Your task to perform on an android device: delete browsing data in the chrome app Image 0: 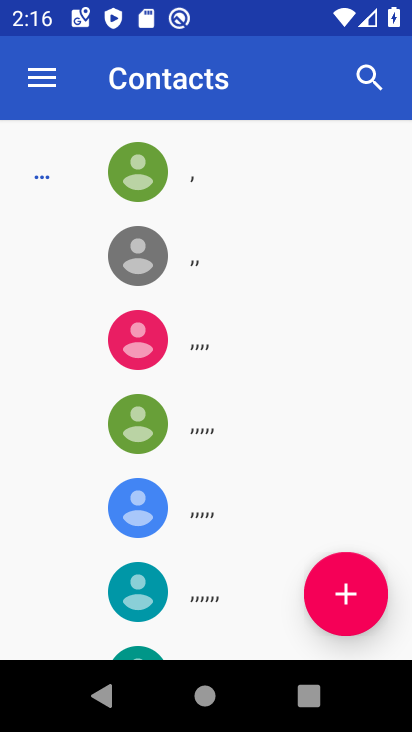
Step 0: press home button
Your task to perform on an android device: delete browsing data in the chrome app Image 1: 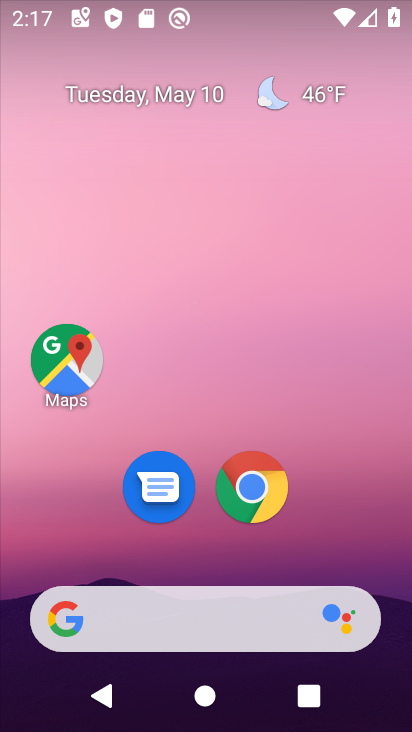
Step 1: click (245, 482)
Your task to perform on an android device: delete browsing data in the chrome app Image 2: 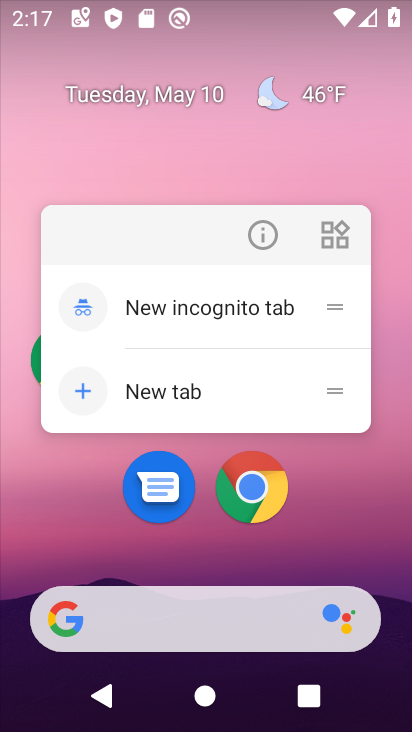
Step 2: click (262, 486)
Your task to perform on an android device: delete browsing data in the chrome app Image 3: 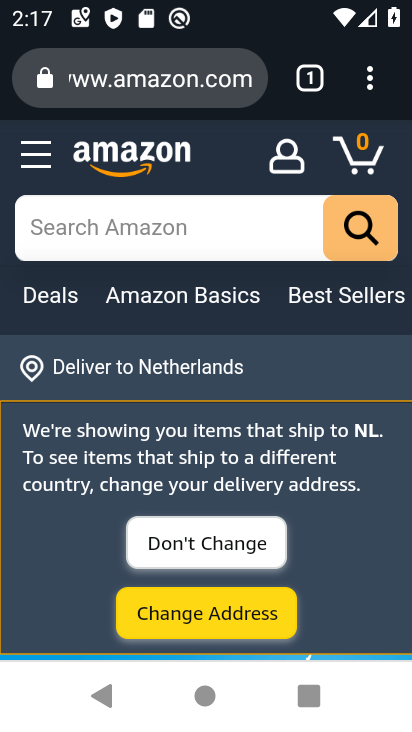
Step 3: drag from (373, 83) to (118, 251)
Your task to perform on an android device: delete browsing data in the chrome app Image 4: 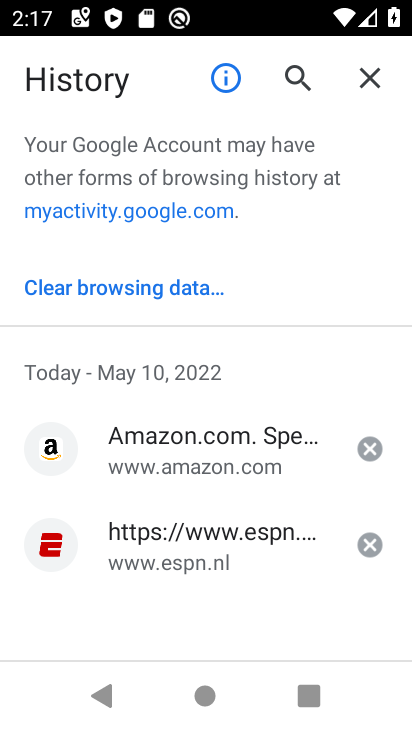
Step 4: click (181, 281)
Your task to perform on an android device: delete browsing data in the chrome app Image 5: 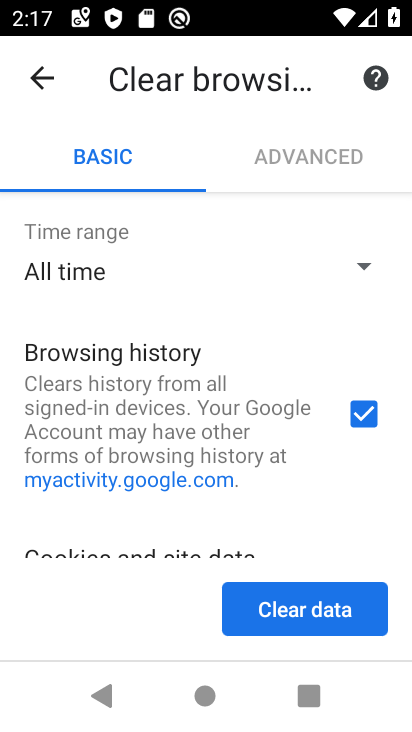
Step 5: drag from (248, 456) to (249, 502)
Your task to perform on an android device: delete browsing data in the chrome app Image 6: 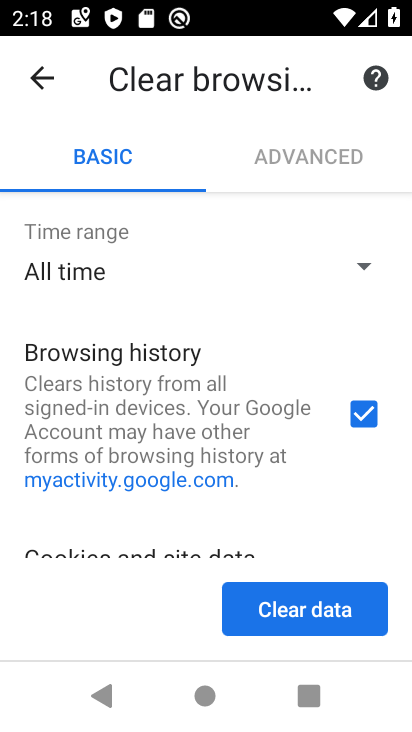
Step 6: click (328, 624)
Your task to perform on an android device: delete browsing data in the chrome app Image 7: 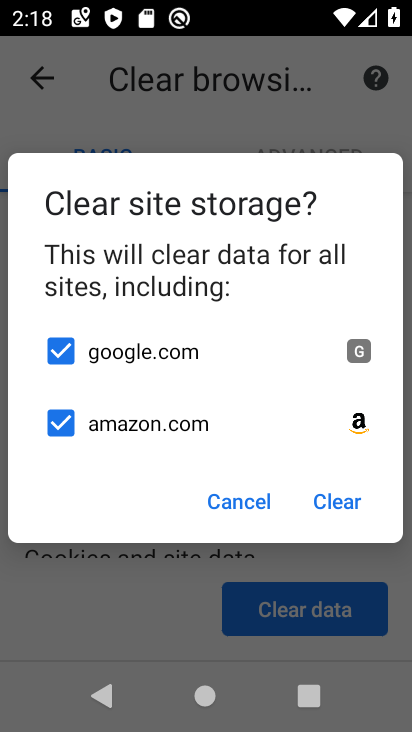
Step 7: click (343, 503)
Your task to perform on an android device: delete browsing data in the chrome app Image 8: 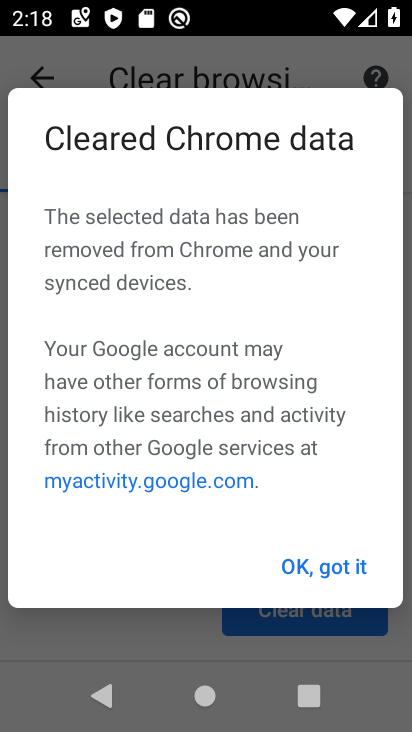
Step 8: task complete